Your task to perform on an android device: Go to calendar. Show me events next week Image 0: 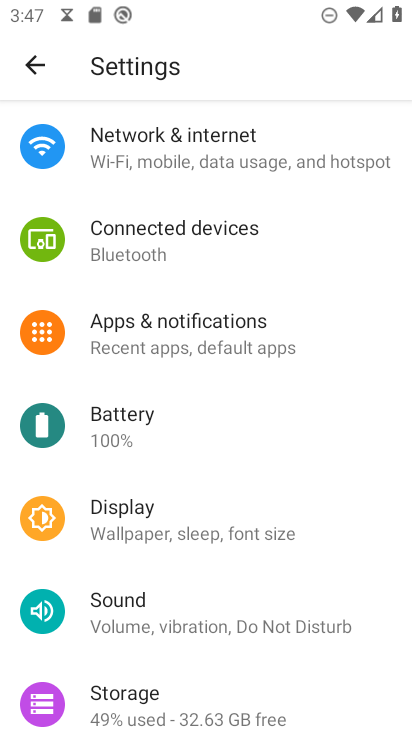
Step 0: press home button
Your task to perform on an android device: Go to calendar. Show me events next week Image 1: 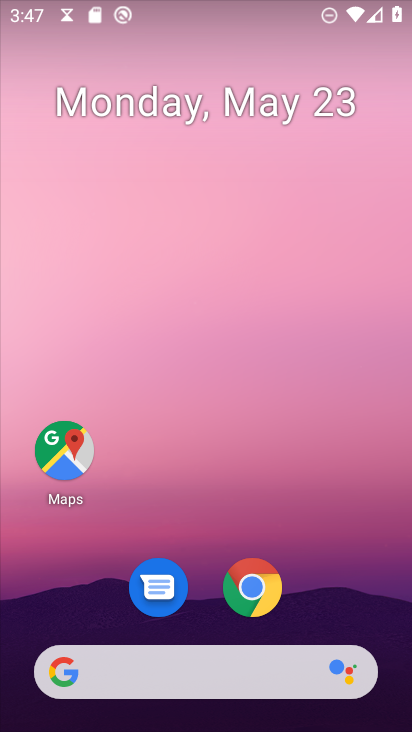
Step 1: drag from (210, 610) to (231, 23)
Your task to perform on an android device: Go to calendar. Show me events next week Image 2: 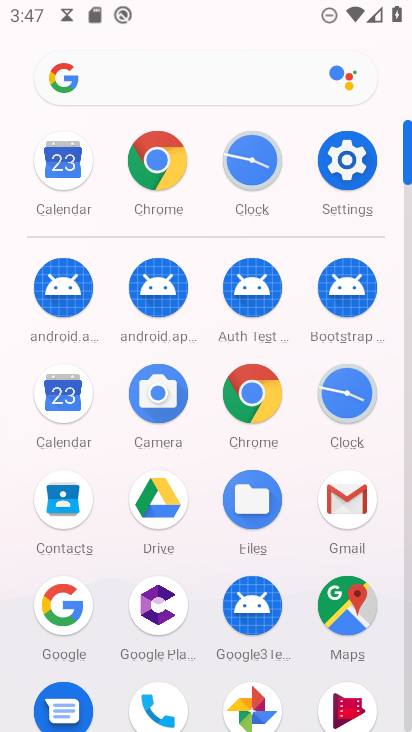
Step 2: click (72, 397)
Your task to perform on an android device: Go to calendar. Show me events next week Image 3: 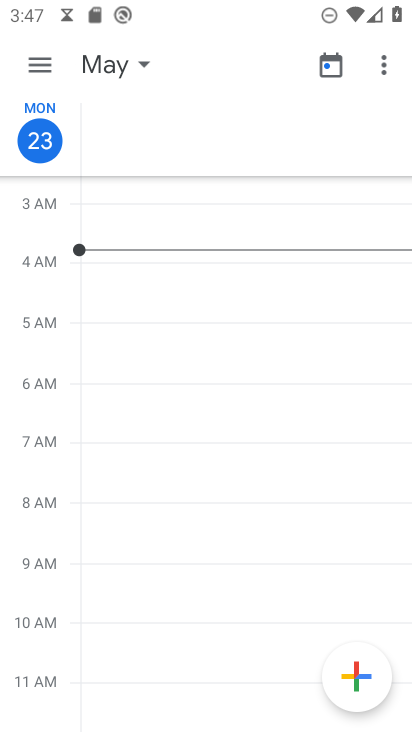
Step 3: click (42, 65)
Your task to perform on an android device: Go to calendar. Show me events next week Image 4: 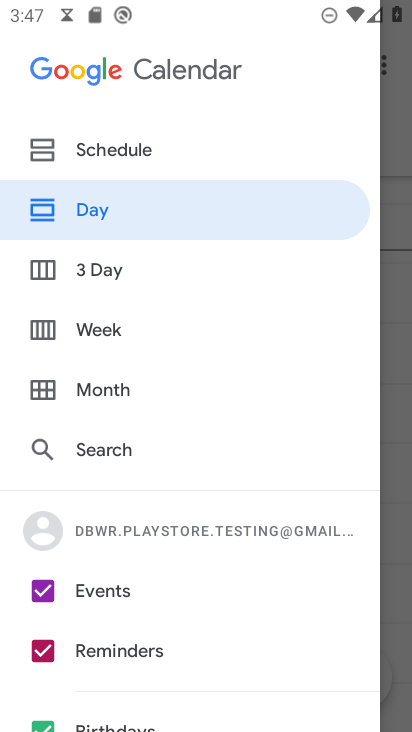
Step 4: click (104, 328)
Your task to perform on an android device: Go to calendar. Show me events next week Image 5: 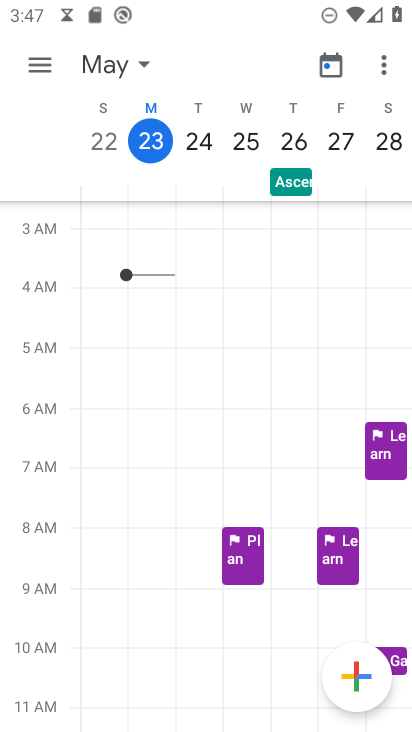
Step 5: click (46, 60)
Your task to perform on an android device: Go to calendar. Show me events next week Image 6: 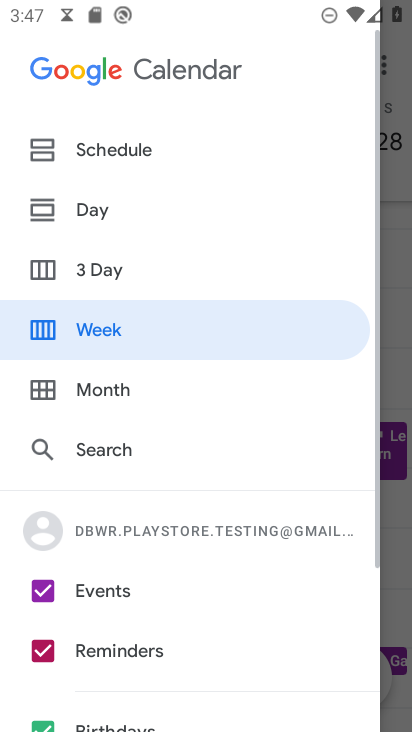
Step 6: click (211, 240)
Your task to perform on an android device: Go to calendar. Show me events next week Image 7: 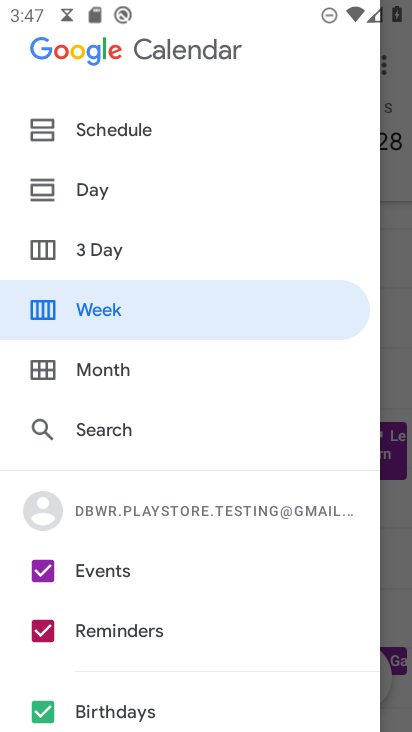
Step 7: drag from (161, 601) to (192, 271)
Your task to perform on an android device: Go to calendar. Show me events next week Image 8: 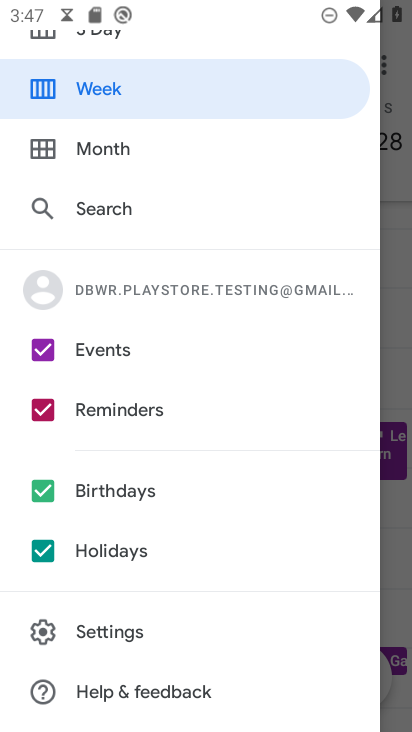
Step 8: click (98, 404)
Your task to perform on an android device: Go to calendar. Show me events next week Image 9: 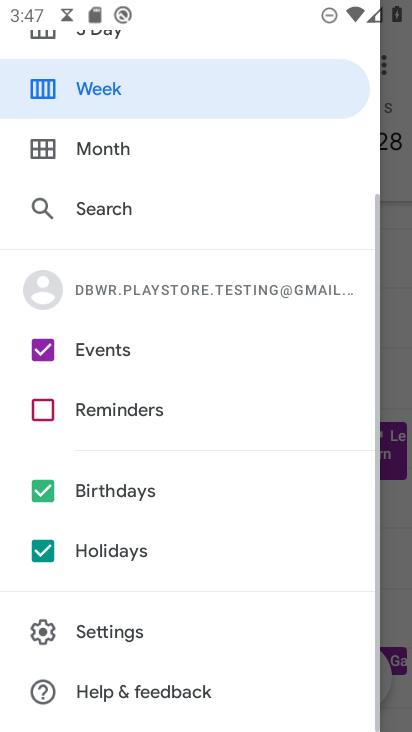
Step 9: click (106, 502)
Your task to perform on an android device: Go to calendar. Show me events next week Image 10: 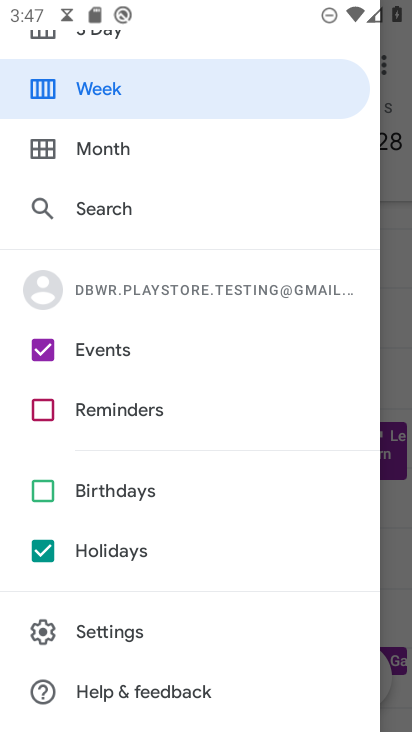
Step 10: click (123, 552)
Your task to perform on an android device: Go to calendar. Show me events next week Image 11: 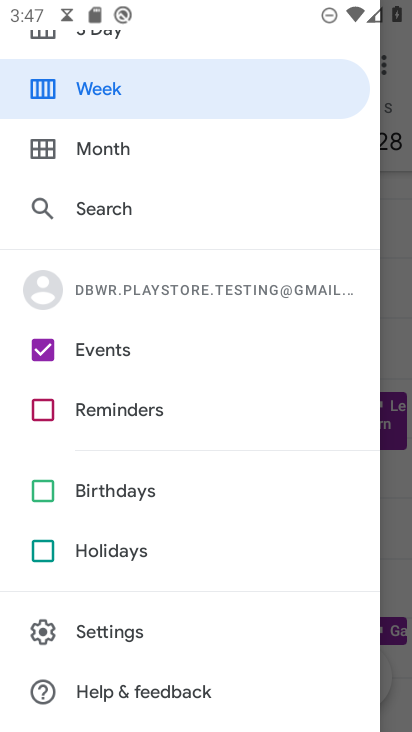
Step 11: click (193, 97)
Your task to perform on an android device: Go to calendar. Show me events next week Image 12: 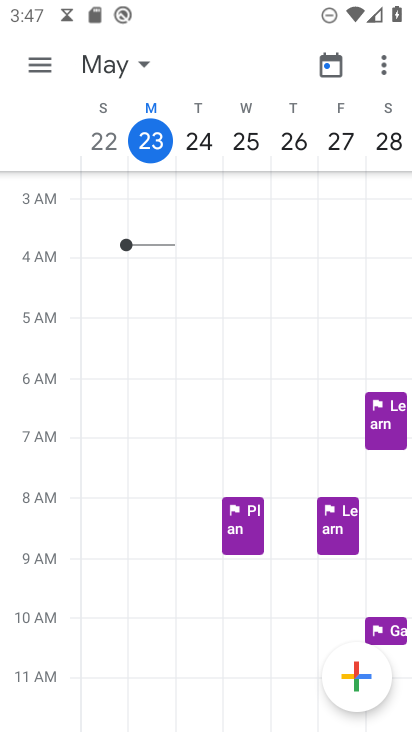
Step 12: task complete